Your task to perform on an android device: move a message to another label in the gmail app Image 0: 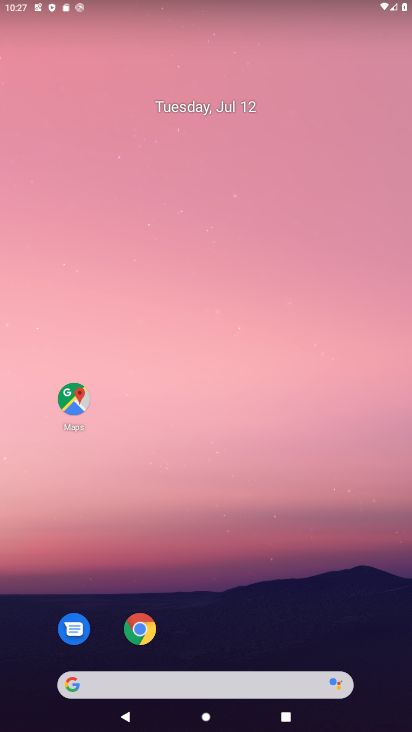
Step 0: drag from (261, 591) to (250, 41)
Your task to perform on an android device: move a message to another label in the gmail app Image 1: 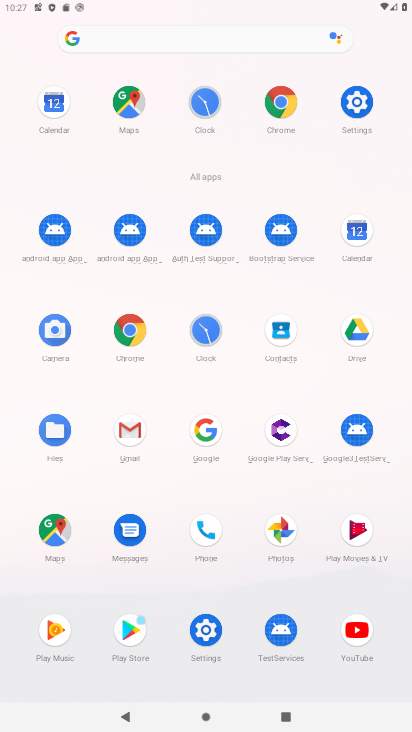
Step 1: click (121, 423)
Your task to perform on an android device: move a message to another label in the gmail app Image 2: 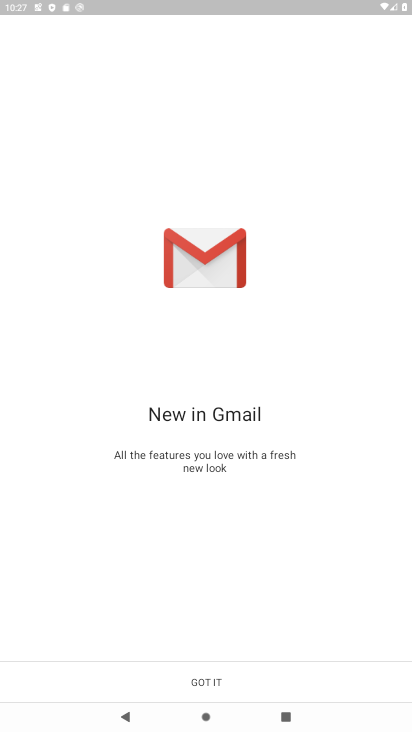
Step 2: click (247, 688)
Your task to perform on an android device: move a message to another label in the gmail app Image 3: 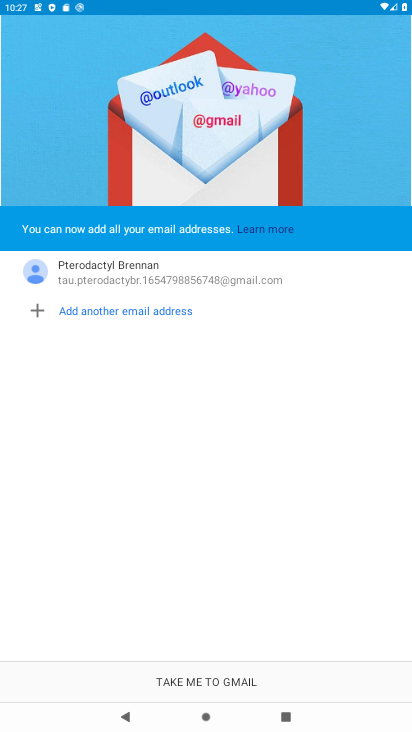
Step 3: click (254, 693)
Your task to perform on an android device: move a message to another label in the gmail app Image 4: 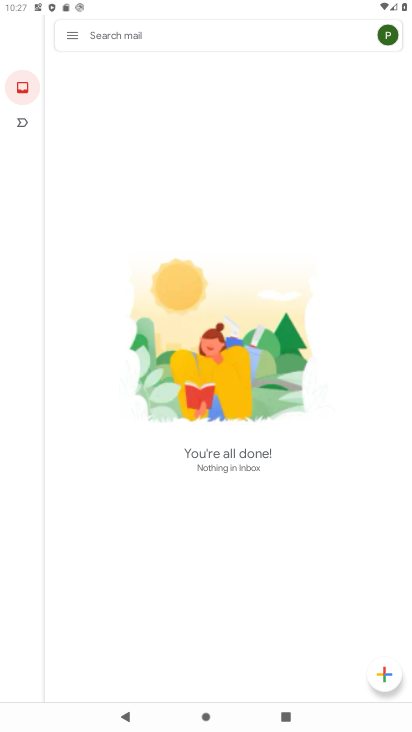
Step 4: click (79, 33)
Your task to perform on an android device: move a message to another label in the gmail app Image 5: 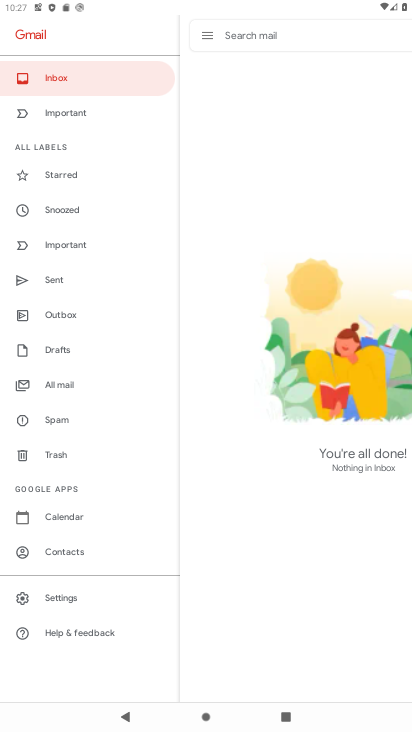
Step 5: click (63, 379)
Your task to perform on an android device: move a message to another label in the gmail app Image 6: 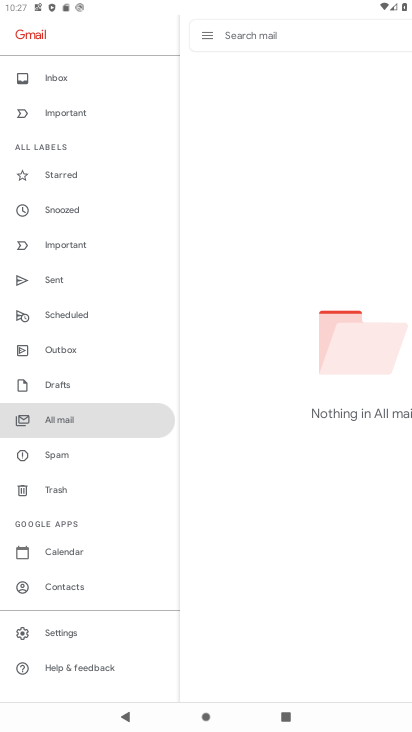
Step 6: task complete